Your task to perform on an android device: turn off location history Image 0: 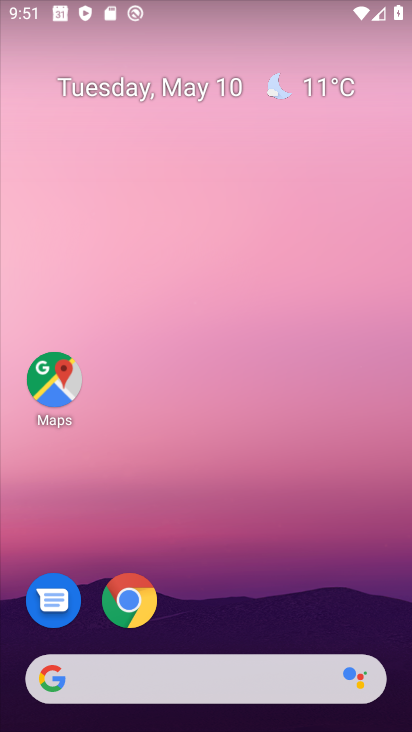
Step 0: drag from (240, 581) to (223, 121)
Your task to perform on an android device: turn off location history Image 1: 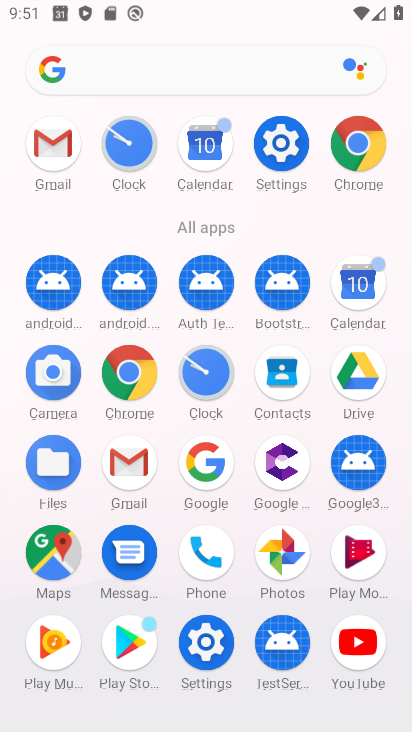
Step 1: click (283, 140)
Your task to perform on an android device: turn off location history Image 2: 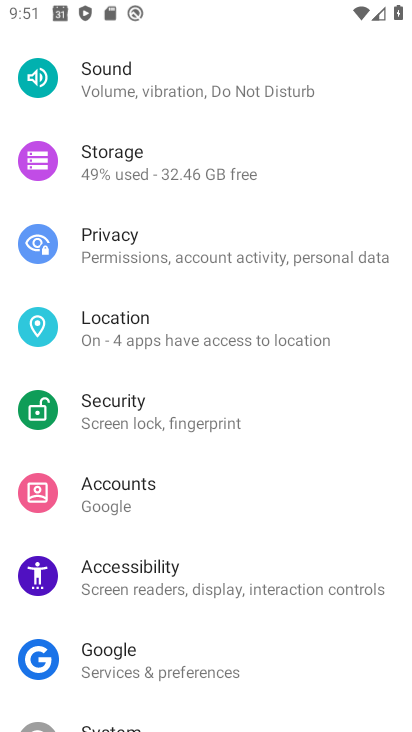
Step 2: click (259, 319)
Your task to perform on an android device: turn off location history Image 3: 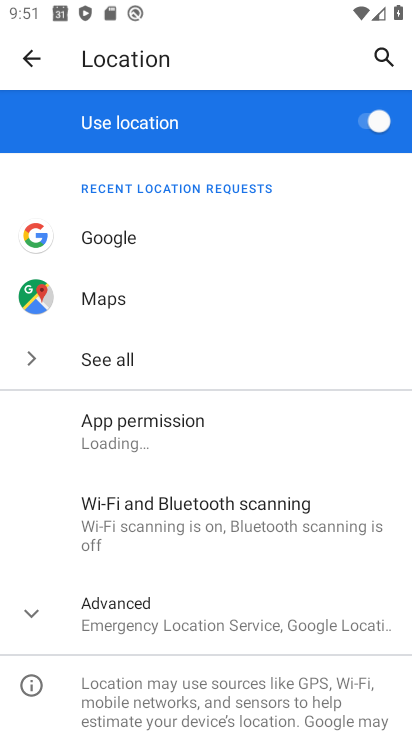
Step 3: drag from (215, 661) to (195, 374)
Your task to perform on an android device: turn off location history Image 4: 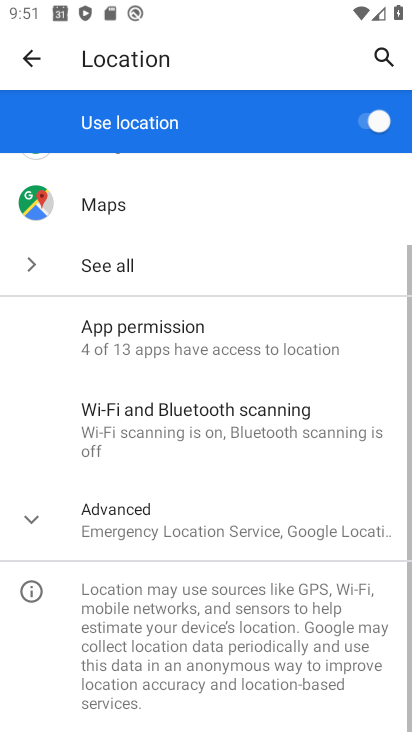
Step 4: click (181, 522)
Your task to perform on an android device: turn off location history Image 5: 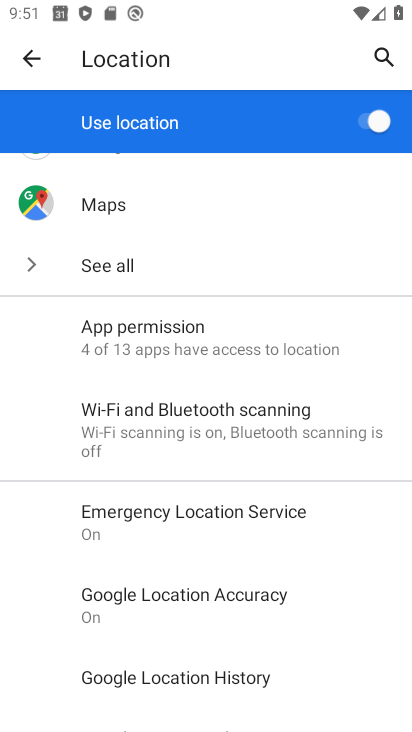
Step 5: drag from (182, 522) to (199, 338)
Your task to perform on an android device: turn off location history Image 6: 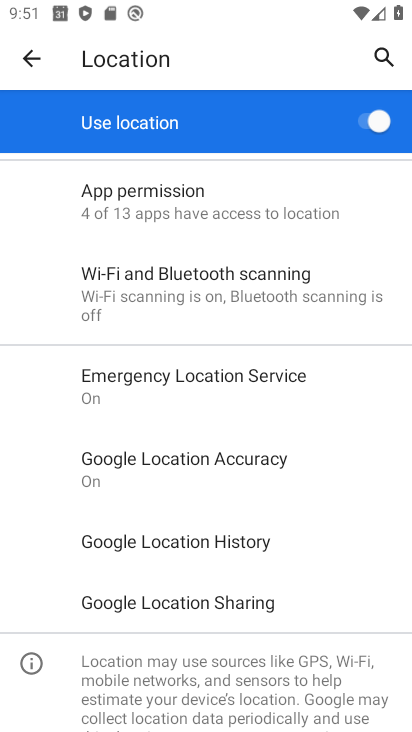
Step 6: click (205, 539)
Your task to perform on an android device: turn off location history Image 7: 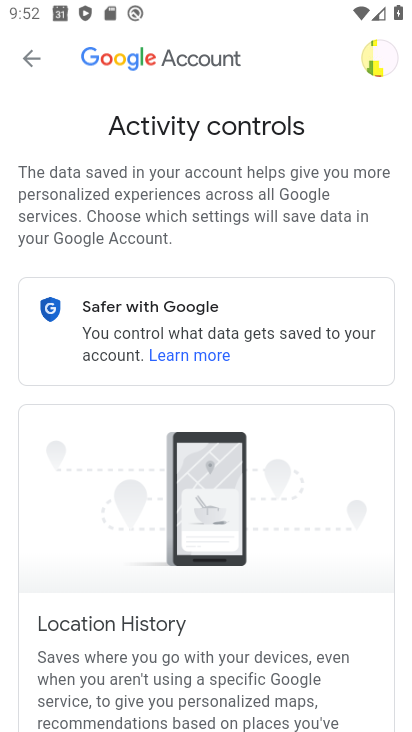
Step 7: task complete